Your task to perform on an android device: Open Google Maps and go to "Timeline" Image 0: 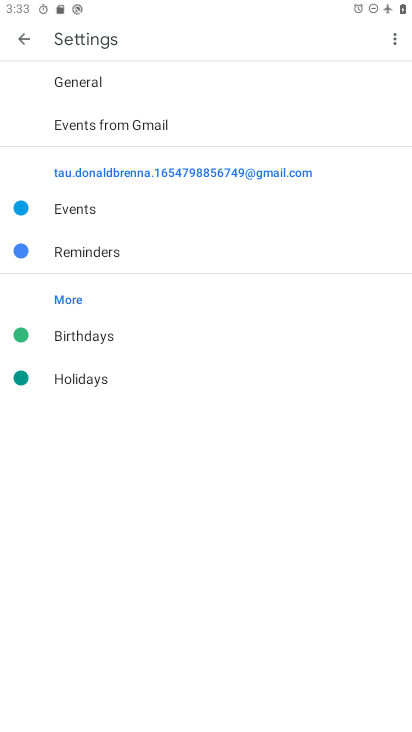
Step 0: press home button
Your task to perform on an android device: Open Google Maps and go to "Timeline" Image 1: 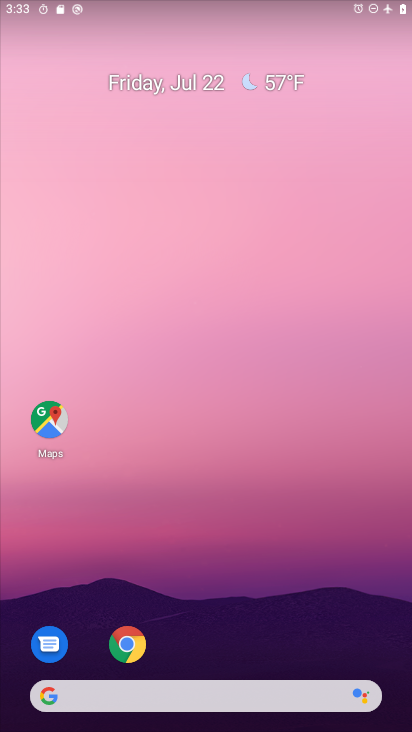
Step 1: click (63, 448)
Your task to perform on an android device: Open Google Maps and go to "Timeline" Image 2: 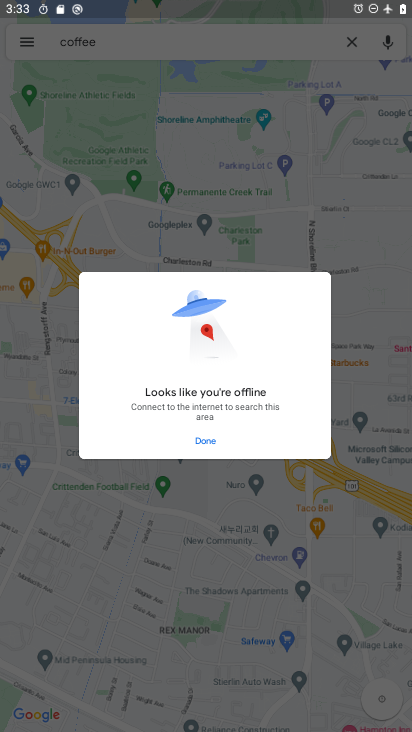
Step 2: click (224, 453)
Your task to perform on an android device: Open Google Maps and go to "Timeline" Image 3: 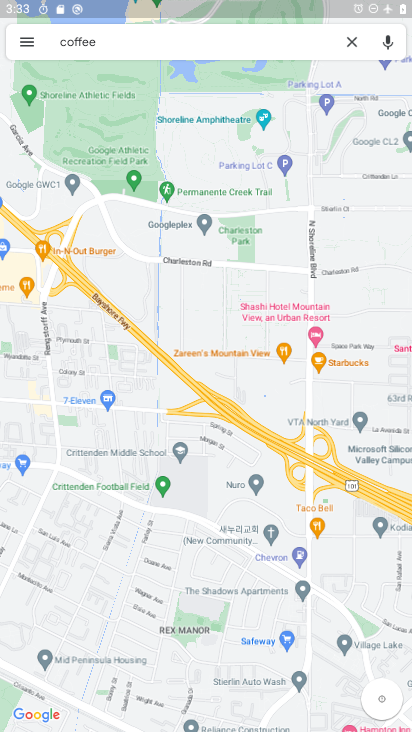
Step 3: click (36, 39)
Your task to perform on an android device: Open Google Maps and go to "Timeline" Image 4: 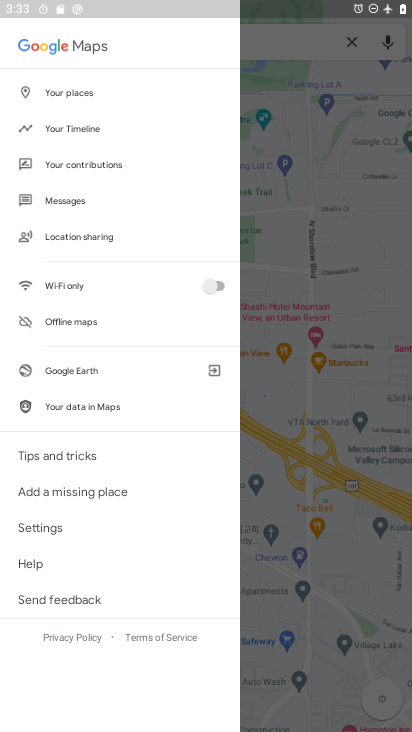
Step 4: click (106, 127)
Your task to perform on an android device: Open Google Maps and go to "Timeline" Image 5: 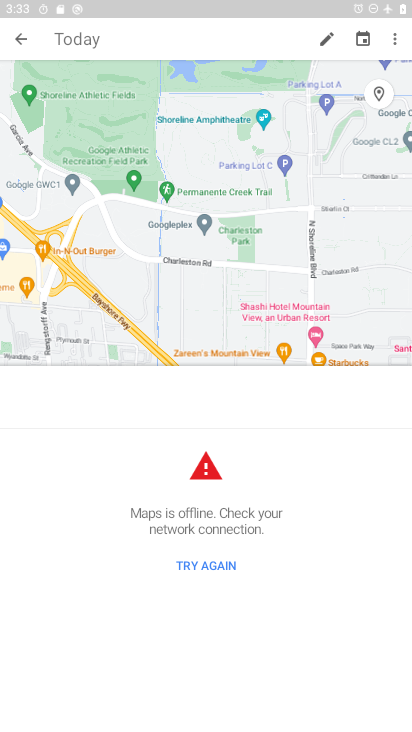
Step 5: task complete